Your task to perform on an android device: check data usage Image 0: 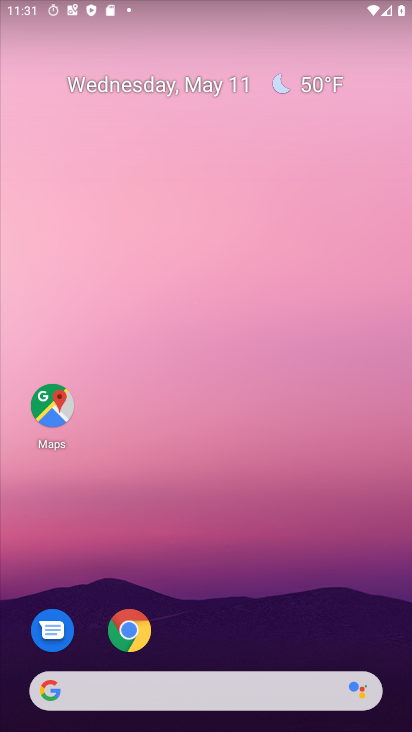
Step 0: drag from (203, 572) to (235, 308)
Your task to perform on an android device: check data usage Image 1: 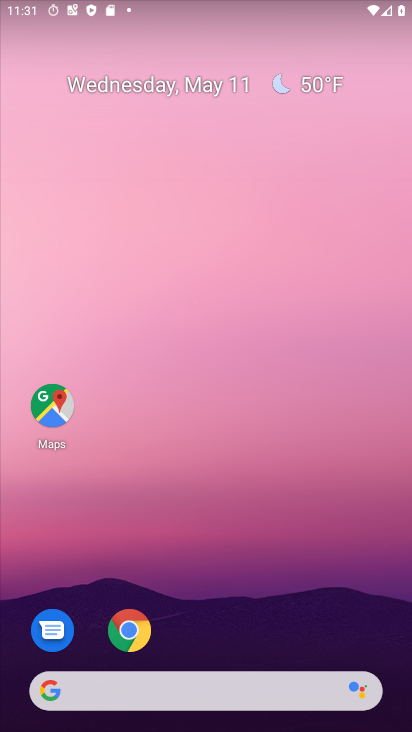
Step 1: drag from (226, 638) to (260, 217)
Your task to perform on an android device: check data usage Image 2: 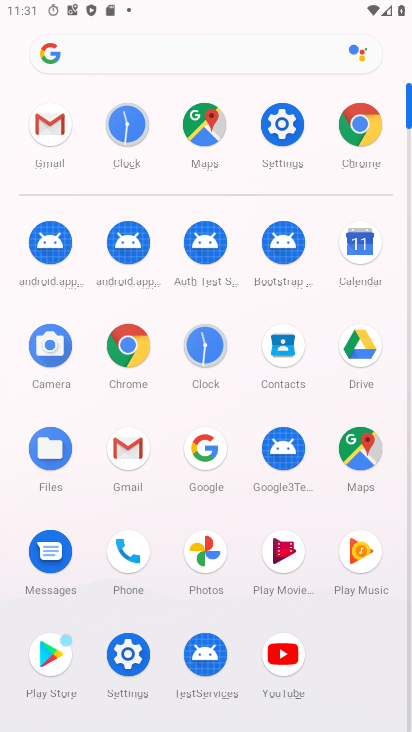
Step 2: click (278, 130)
Your task to perform on an android device: check data usage Image 3: 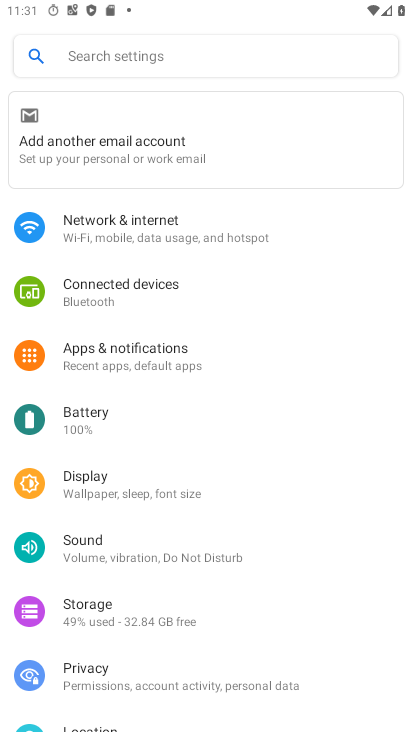
Step 3: click (177, 236)
Your task to perform on an android device: check data usage Image 4: 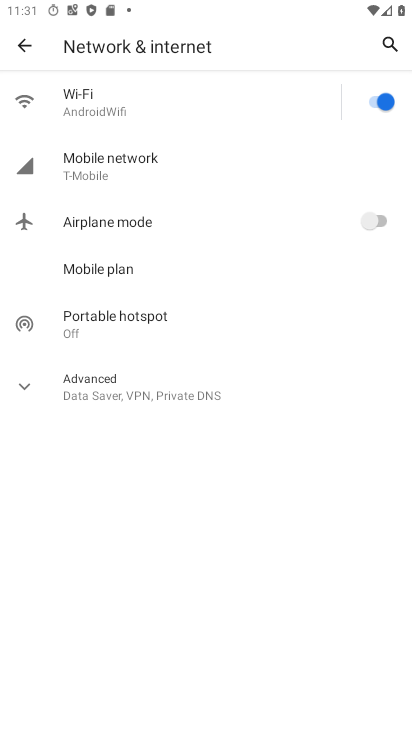
Step 4: click (148, 167)
Your task to perform on an android device: check data usage Image 5: 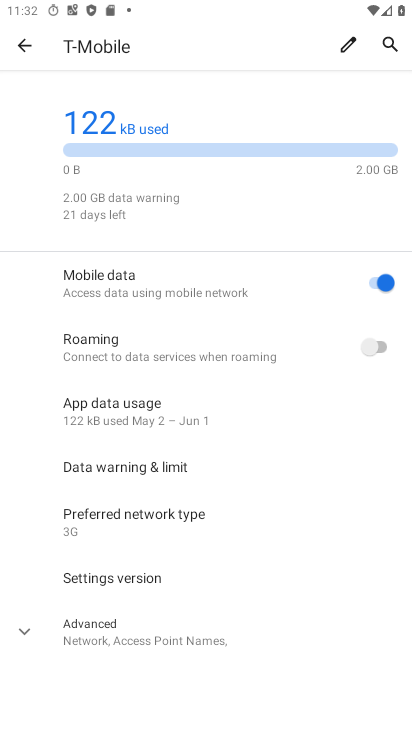
Step 5: task complete